Your task to perform on an android device: change the upload size in google photos Image 0: 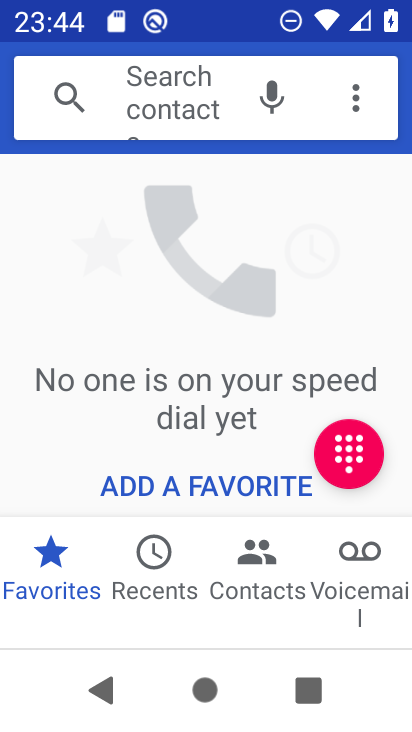
Step 0: press home button
Your task to perform on an android device: change the upload size in google photos Image 1: 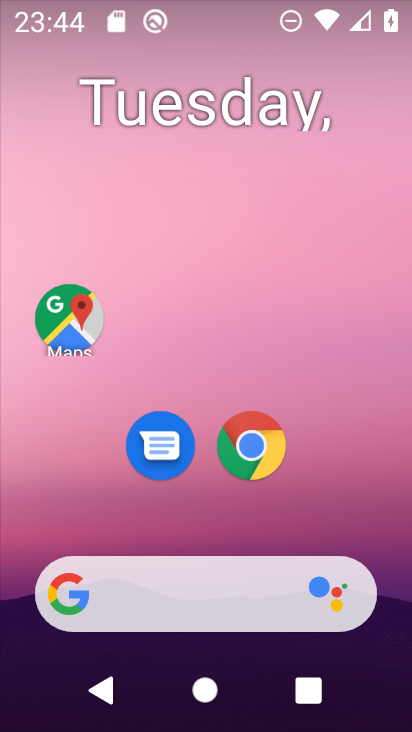
Step 1: drag from (313, 521) to (352, 74)
Your task to perform on an android device: change the upload size in google photos Image 2: 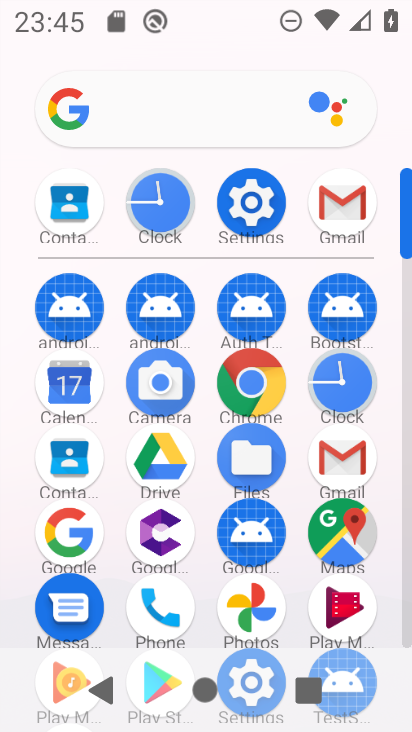
Step 2: click (240, 604)
Your task to perform on an android device: change the upload size in google photos Image 3: 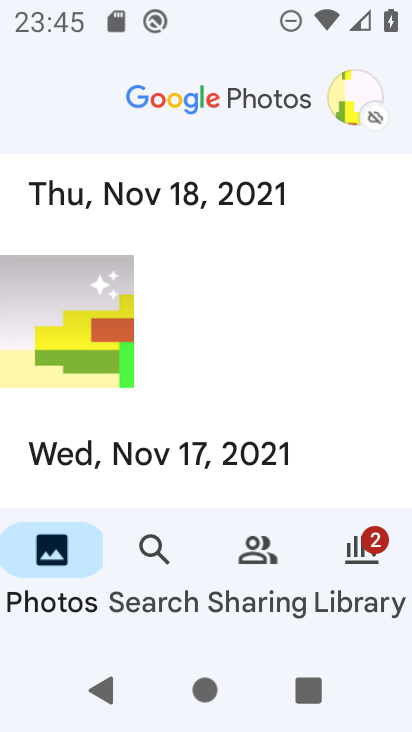
Step 3: click (345, 102)
Your task to perform on an android device: change the upload size in google photos Image 4: 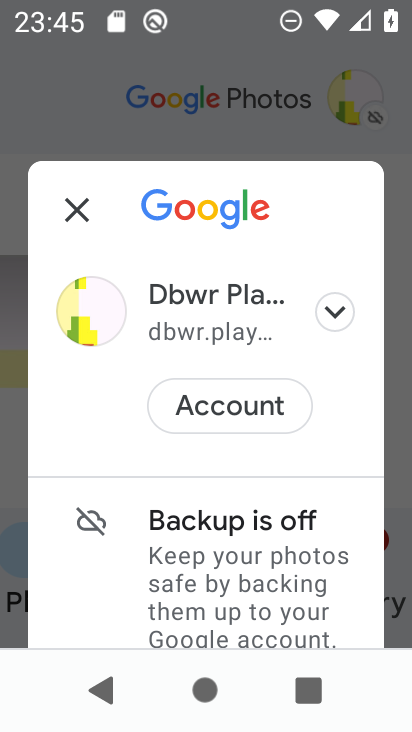
Step 4: drag from (224, 539) to (262, 136)
Your task to perform on an android device: change the upload size in google photos Image 5: 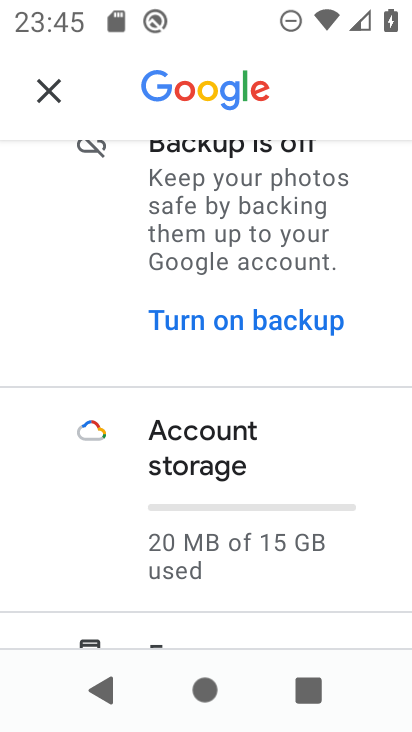
Step 5: drag from (241, 520) to (304, 213)
Your task to perform on an android device: change the upload size in google photos Image 6: 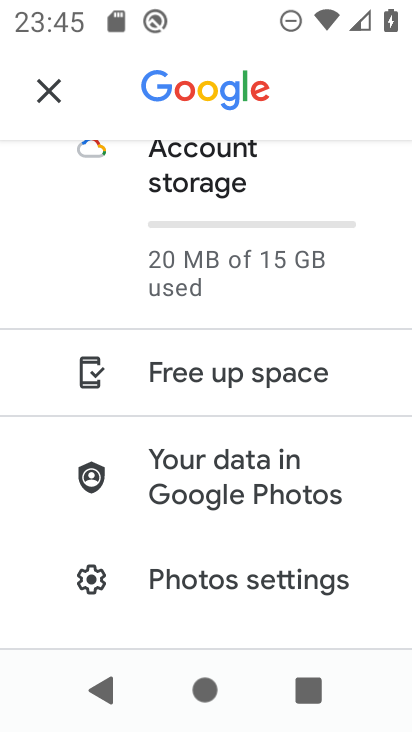
Step 6: click (221, 576)
Your task to perform on an android device: change the upload size in google photos Image 7: 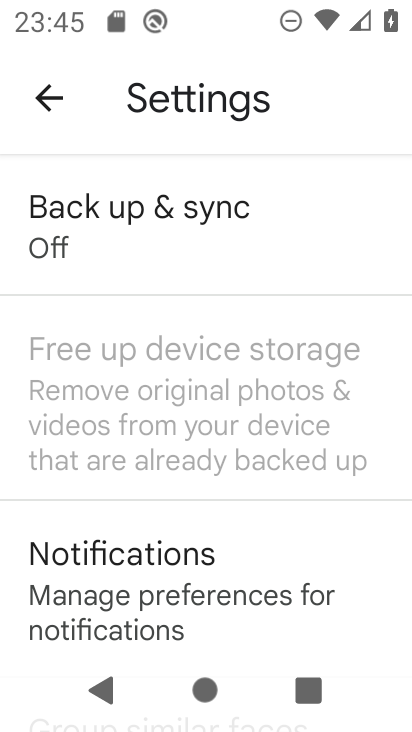
Step 7: click (154, 266)
Your task to perform on an android device: change the upload size in google photos Image 8: 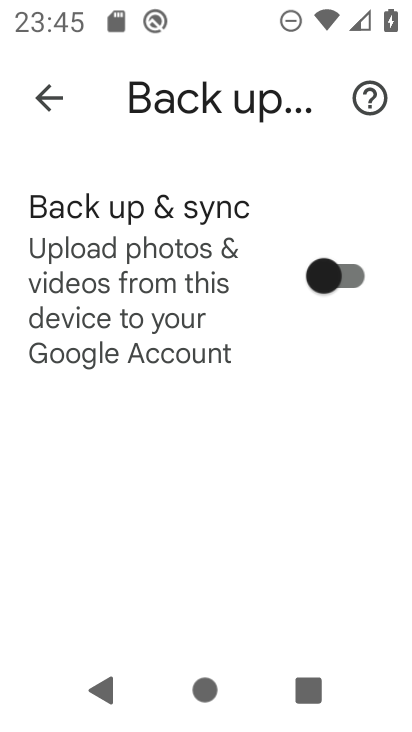
Step 8: click (132, 322)
Your task to perform on an android device: change the upload size in google photos Image 9: 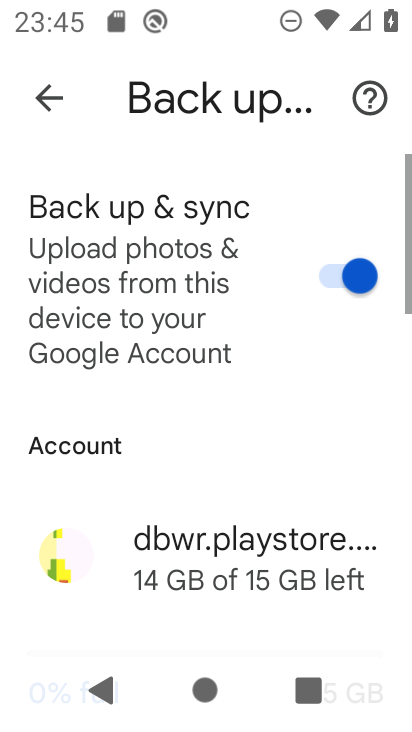
Step 9: drag from (199, 570) to (172, 332)
Your task to perform on an android device: change the upload size in google photos Image 10: 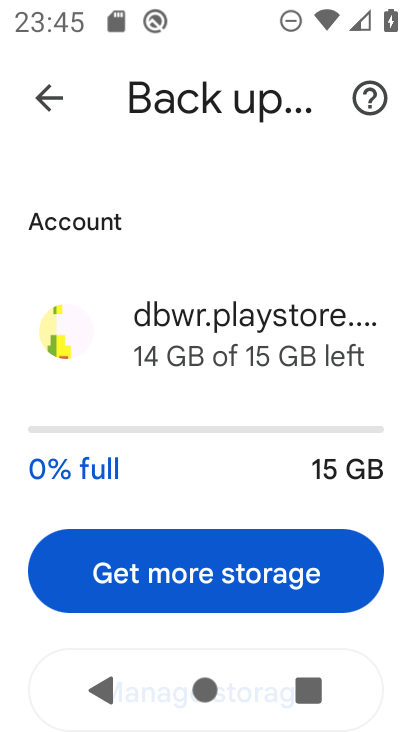
Step 10: drag from (209, 604) to (169, 354)
Your task to perform on an android device: change the upload size in google photos Image 11: 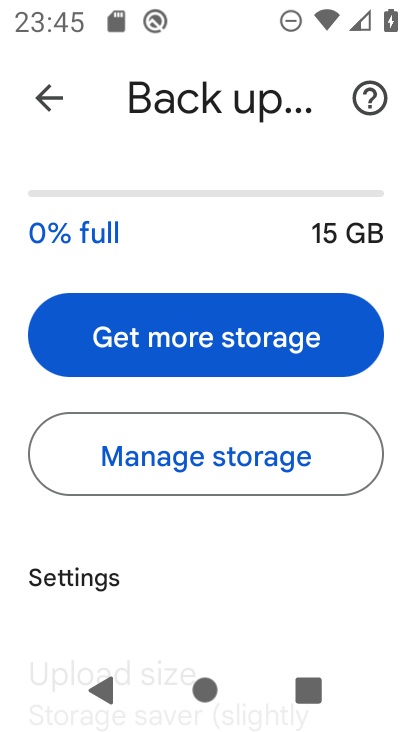
Step 11: drag from (251, 331) to (209, 237)
Your task to perform on an android device: change the upload size in google photos Image 12: 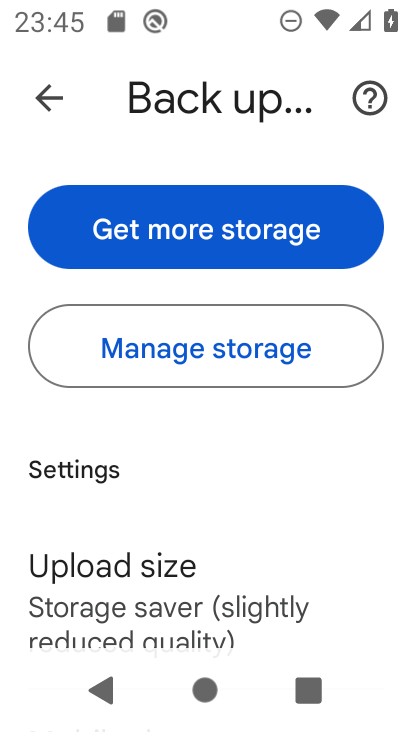
Step 12: drag from (168, 549) to (168, 362)
Your task to perform on an android device: change the upload size in google photos Image 13: 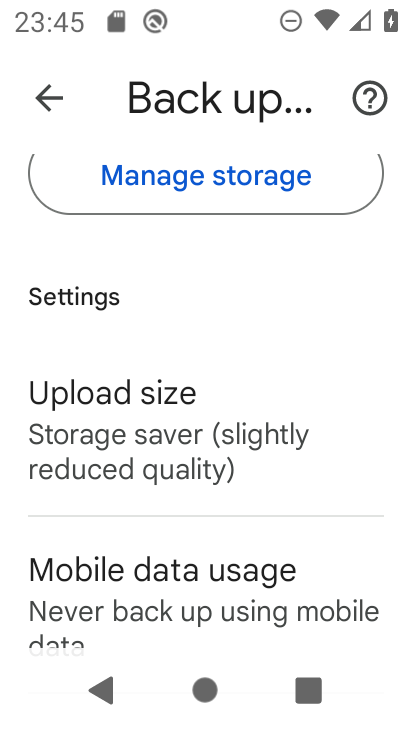
Step 13: click (96, 452)
Your task to perform on an android device: change the upload size in google photos Image 14: 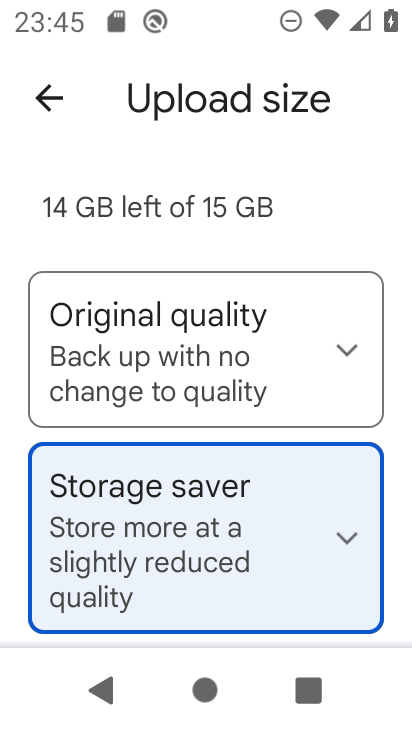
Step 14: click (173, 362)
Your task to perform on an android device: change the upload size in google photos Image 15: 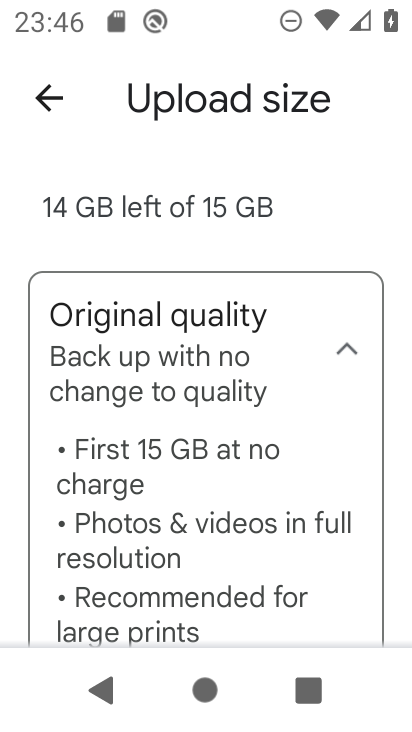
Step 15: drag from (200, 506) to (227, 247)
Your task to perform on an android device: change the upload size in google photos Image 16: 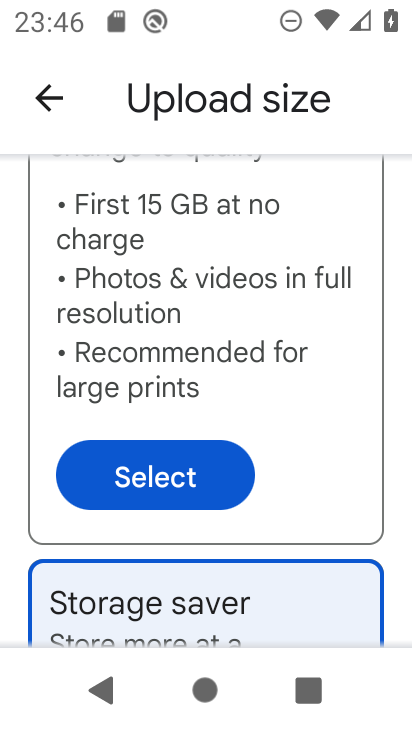
Step 16: click (157, 364)
Your task to perform on an android device: change the upload size in google photos Image 17: 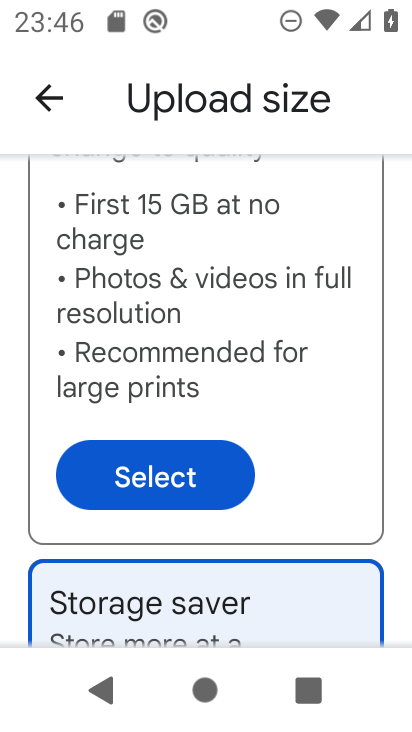
Step 17: click (154, 515)
Your task to perform on an android device: change the upload size in google photos Image 18: 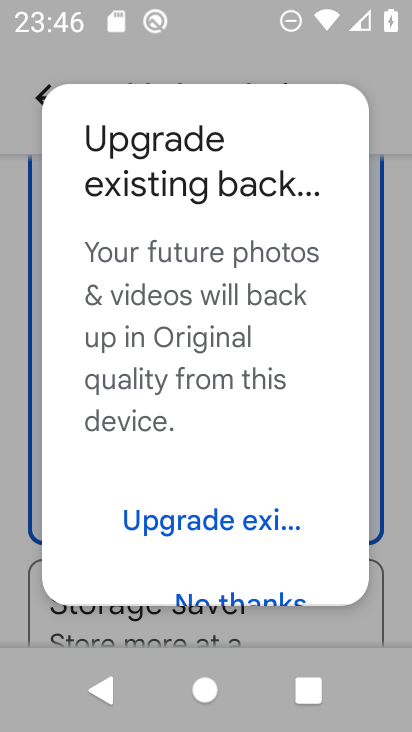
Step 18: task complete